Your task to perform on an android device: When is my next meeting? Image 0: 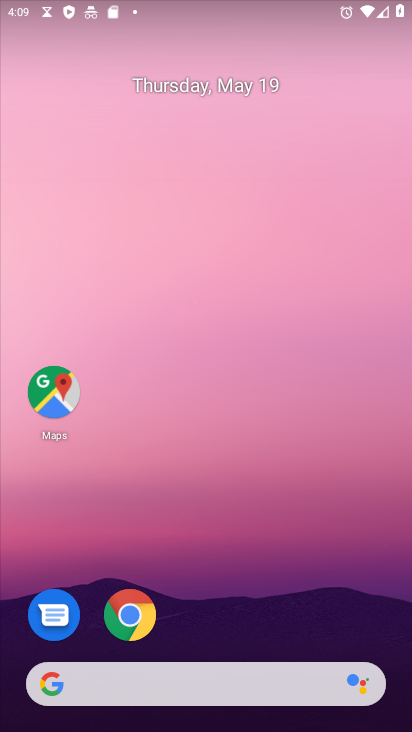
Step 0: drag from (366, 620) to (182, 72)
Your task to perform on an android device: When is my next meeting? Image 1: 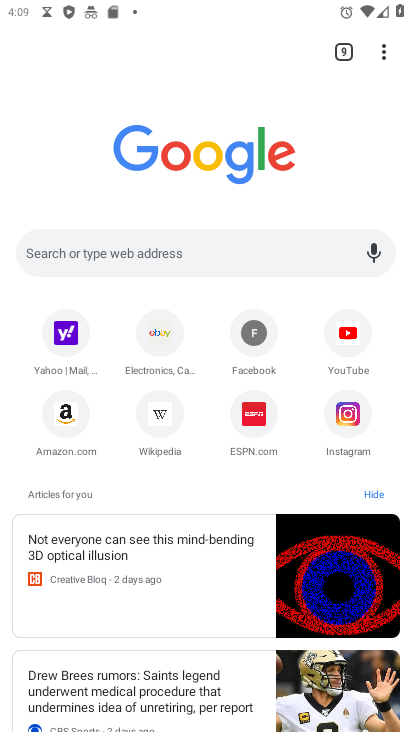
Step 1: click (380, 47)
Your task to perform on an android device: When is my next meeting? Image 2: 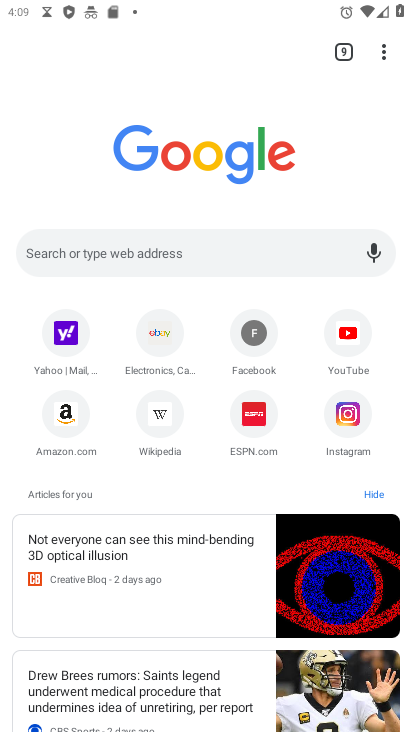
Step 2: press back button
Your task to perform on an android device: When is my next meeting? Image 3: 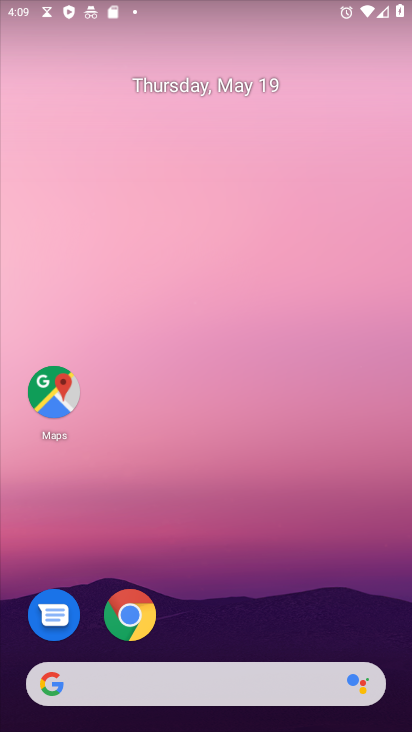
Step 3: drag from (282, 569) to (279, 72)
Your task to perform on an android device: When is my next meeting? Image 4: 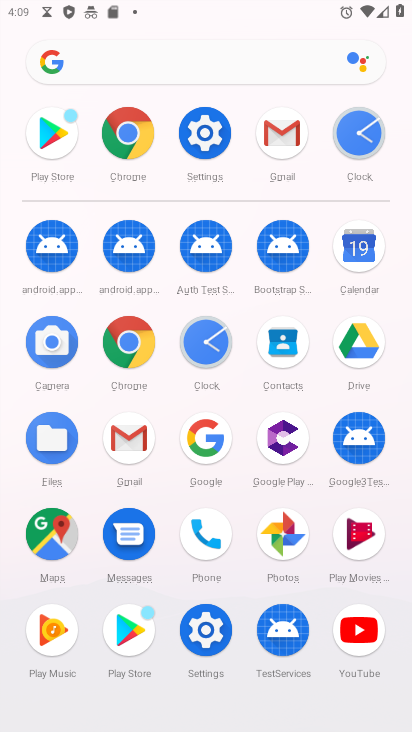
Step 4: click (358, 257)
Your task to perform on an android device: When is my next meeting? Image 5: 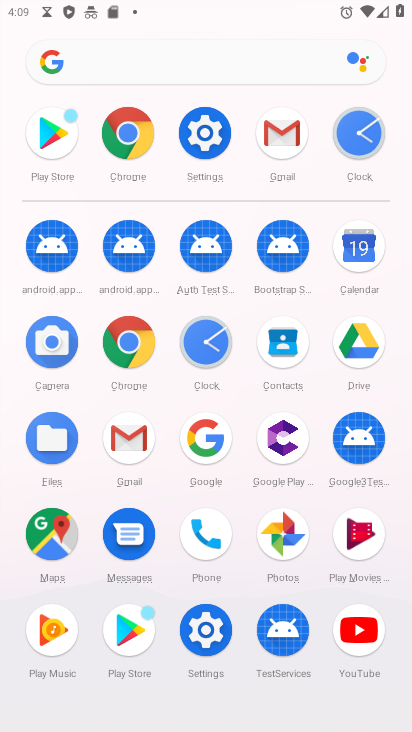
Step 5: click (358, 257)
Your task to perform on an android device: When is my next meeting? Image 6: 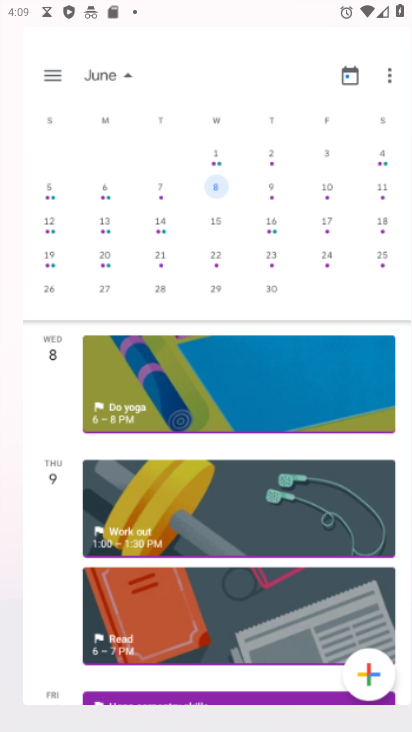
Step 6: click (358, 257)
Your task to perform on an android device: When is my next meeting? Image 7: 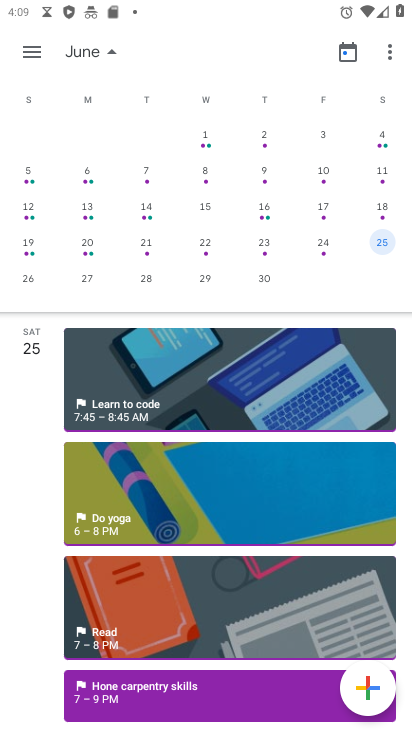
Step 7: click (410, 277)
Your task to perform on an android device: When is my next meeting? Image 8: 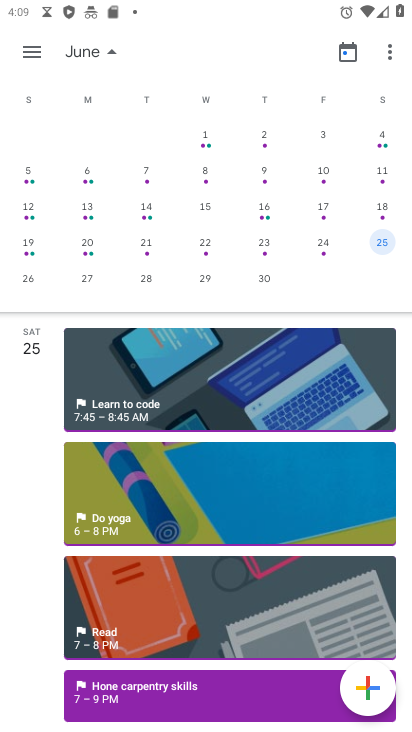
Step 8: drag from (75, 202) to (387, 202)
Your task to perform on an android device: When is my next meeting? Image 9: 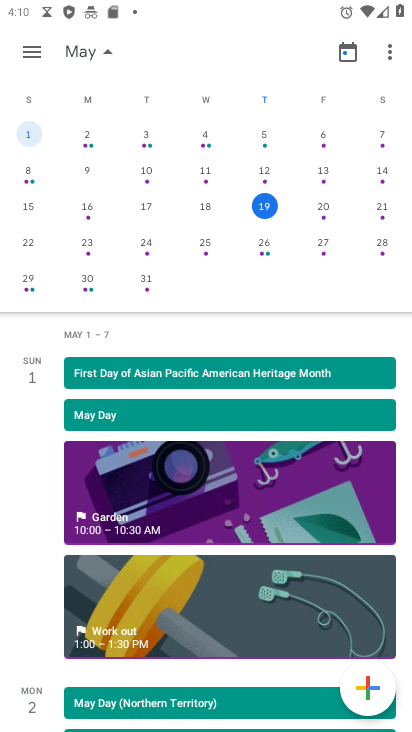
Step 9: drag from (150, 469) to (146, 157)
Your task to perform on an android device: When is my next meeting? Image 10: 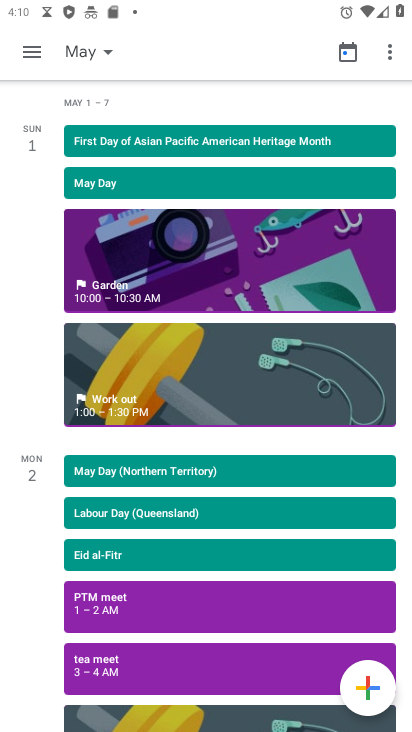
Step 10: drag from (161, 400) to (116, 91)
Your task to perform on an android device: When is my next meeting? Image 11: 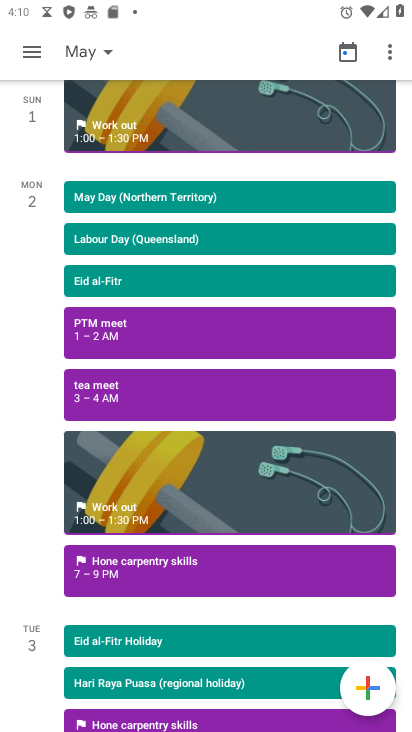
Step 11: drag from (126, 427) to (152, 17)
Your task to perform on an android device: When is my next meeting? Image 12: 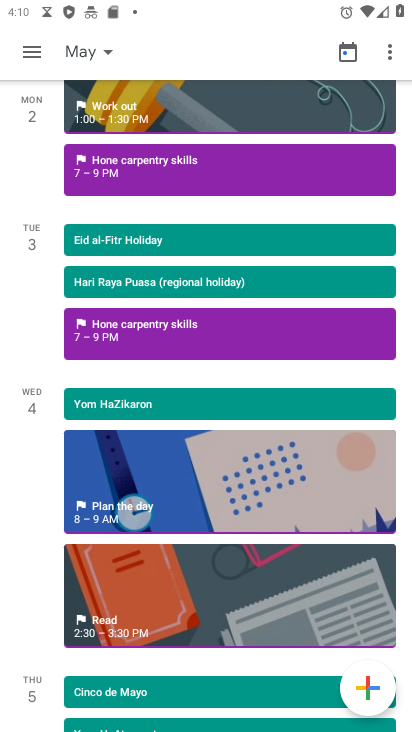
Step 12: drag from (159, 421) to (143, 127)
Your task to perform on an android device: When is my next meeting? Image 13: 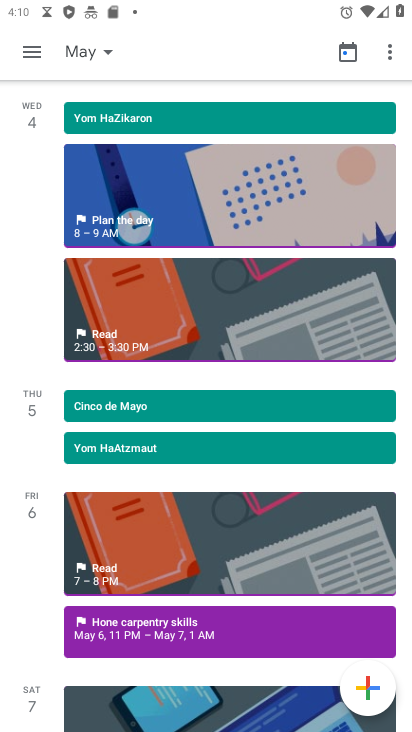
Step 13: drag from (177, 492) to (163, 120)
Your task to perform on an android device: When is my next meeting? Image 14: 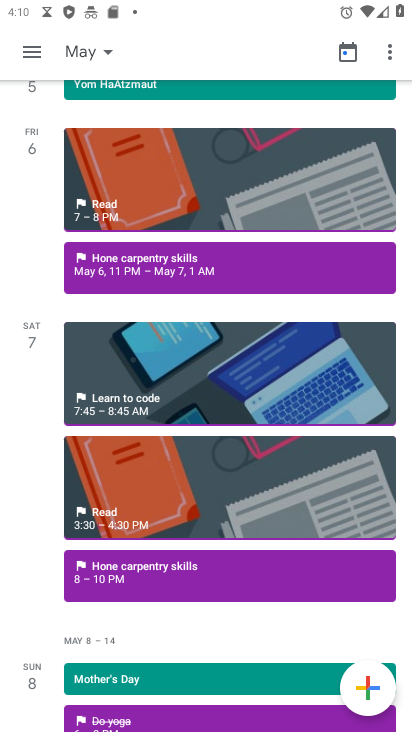
Step 14: drag from (203, 387) to (203, 168)
Your task to perform on an android device: When is my next meeting? Image 15: 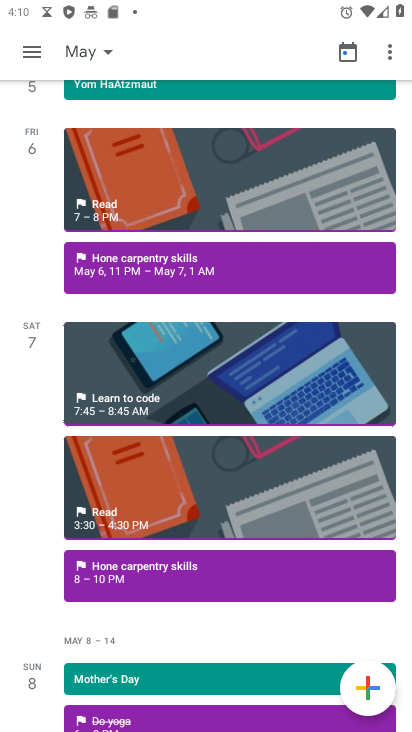
Step 15: drag from (267, 399) to (214, 150)
Your task to perform on an android device: When is my next meeting? Image 16: 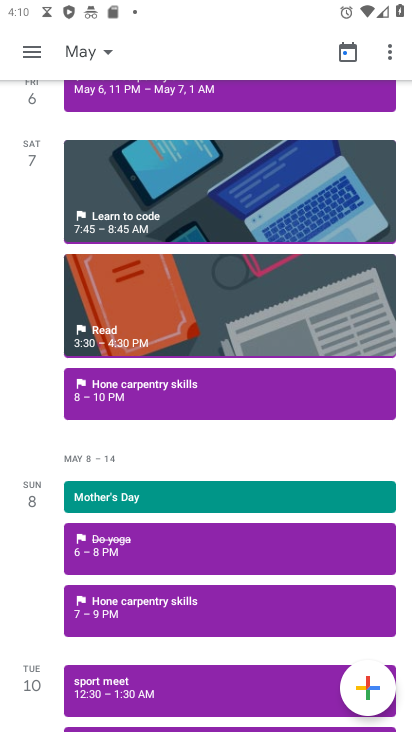
Step 16: drag from (219, 461) to (197, 213)
Your task to perform on an android device: When is my next meeting? Image 17: 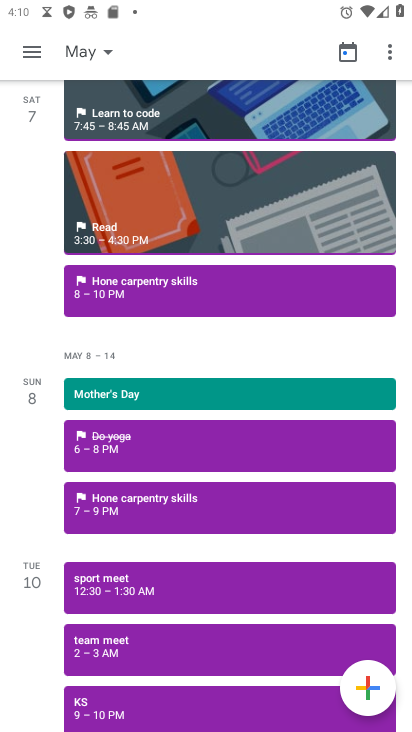
Step 17: drag from (163, 412) to (180, 73)
Your task to perform on an android device: When is my next meeting? Image 18: 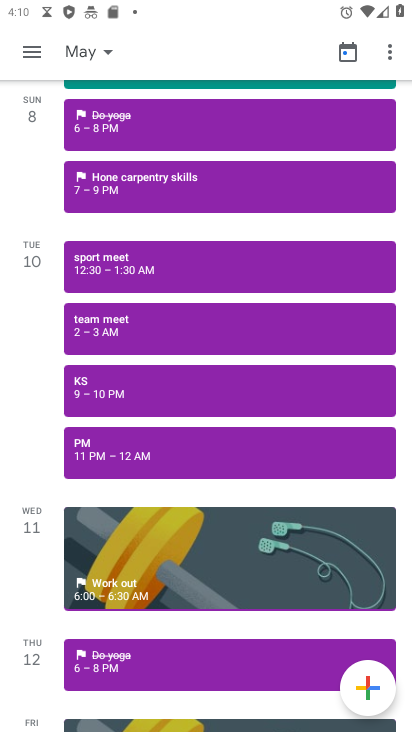
Step 18: drag from (218, 439) to (200, 99)
Your task to perform on an android device: When is my next meeting? Image 19: 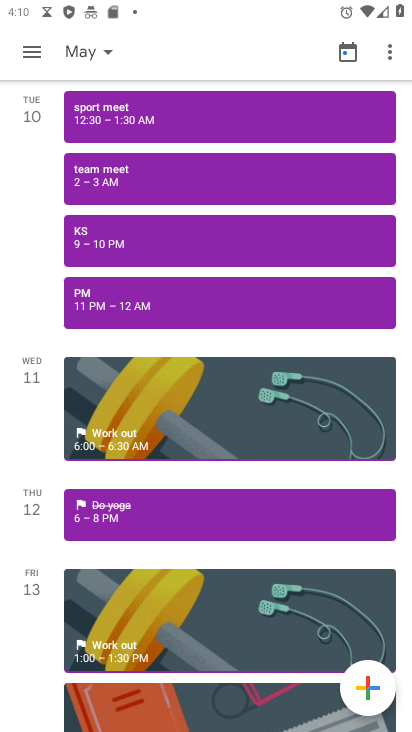
Step 19: click (175, 146)
Your task to perform on an android device: When is my next meeting? Image 20: 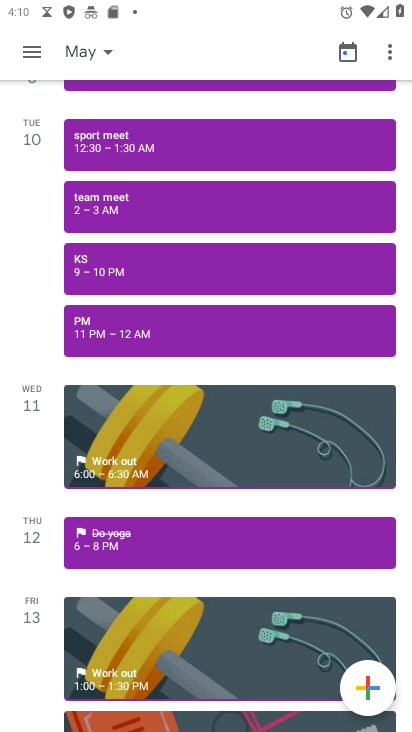
Step 20: task complete